Your task to perform on an android device: Go to ESPN.com Image 0: 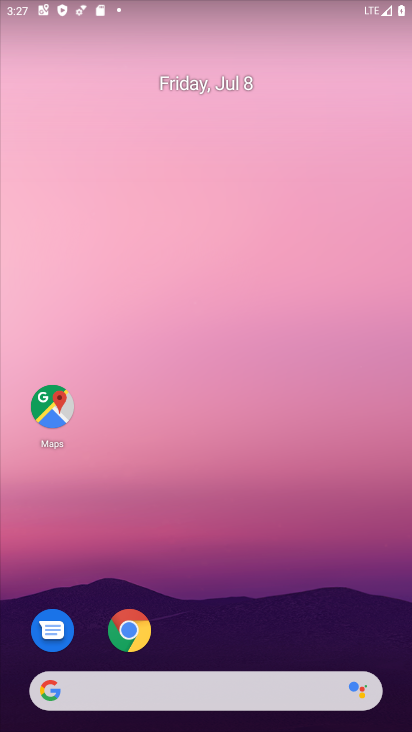
Step 0: click (133, 628)
Your task to perform on an android device: Go to ESPN.com Image 1: 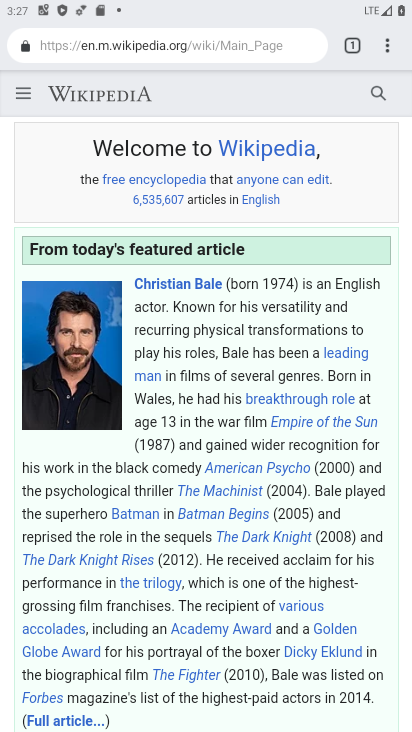
Step 1: click (161, 44)
Your task to perform on an android device: Go to ESPN.com Image 2: 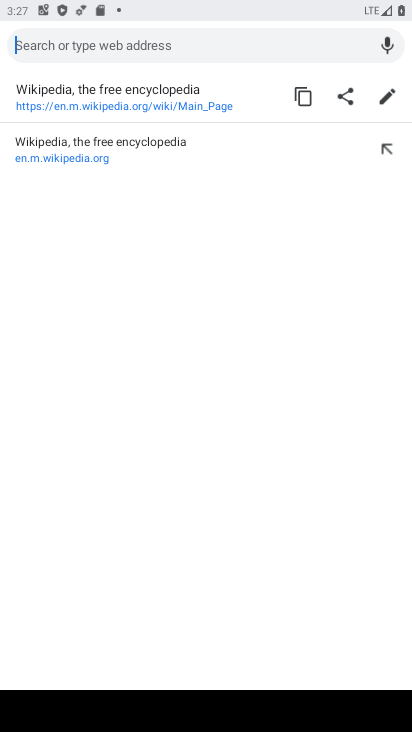
Step 2: type "ESPN.com"
Your task to perform on an android device: Go to ESPN.com Image 3: 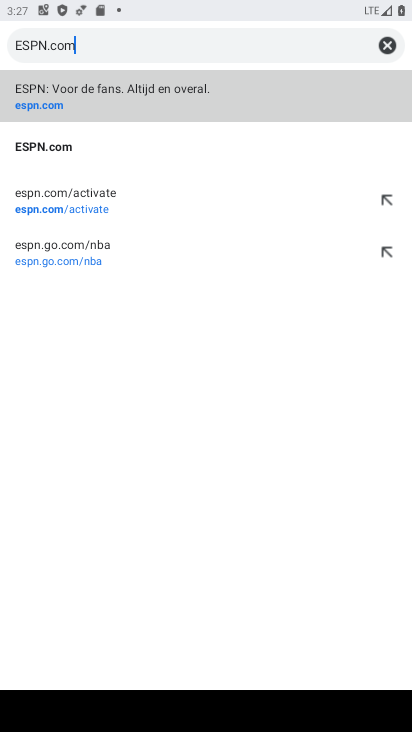
Step 3: click (57, 146)
Your task to perform on an android device: Go to ESPN.com Image 4: 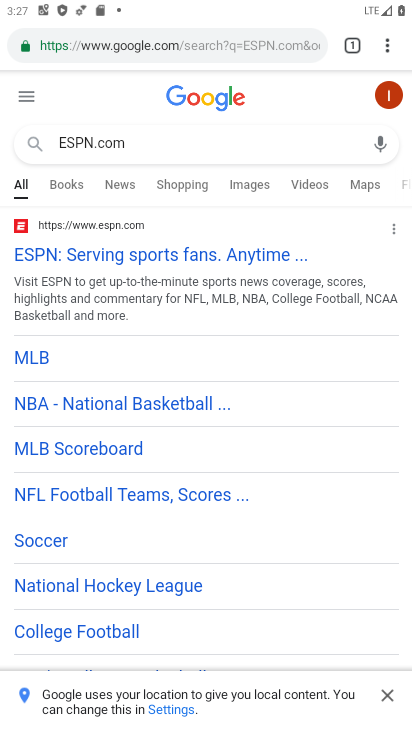
Step 4: click (73, 257)
Your task to perform on an android device: Go to ESPN.com Image 5: 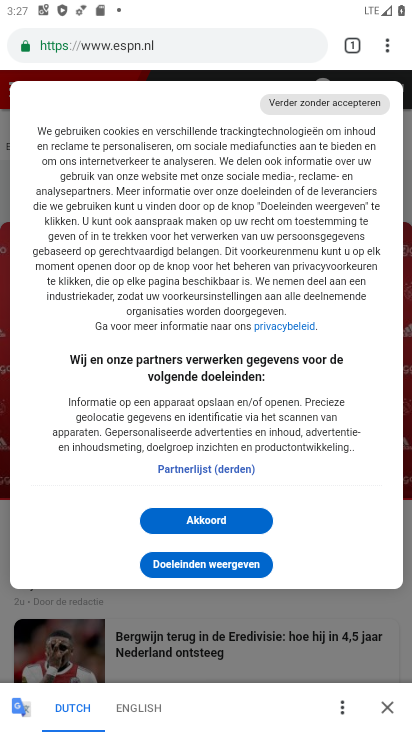
Step 5: click (230, 517)
Your task to perform on an android device: Go to ESPN.com Image 6: 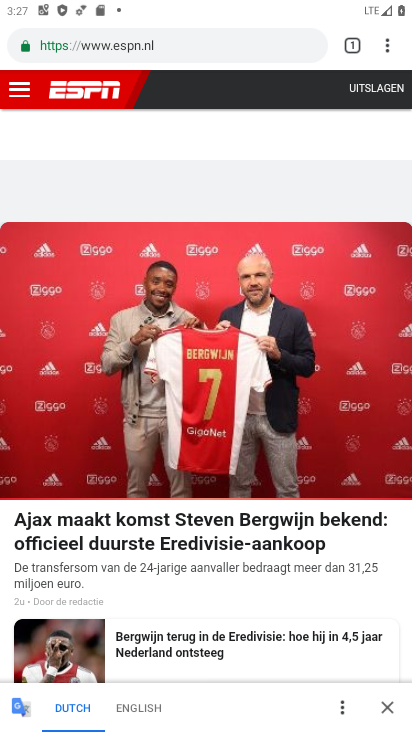
Step 6: task complete